Your task to perform on an android device: Search for beats solo 3 on bestbuy.com, select the first entry, add it to the cart, then select checkout. Image 0: 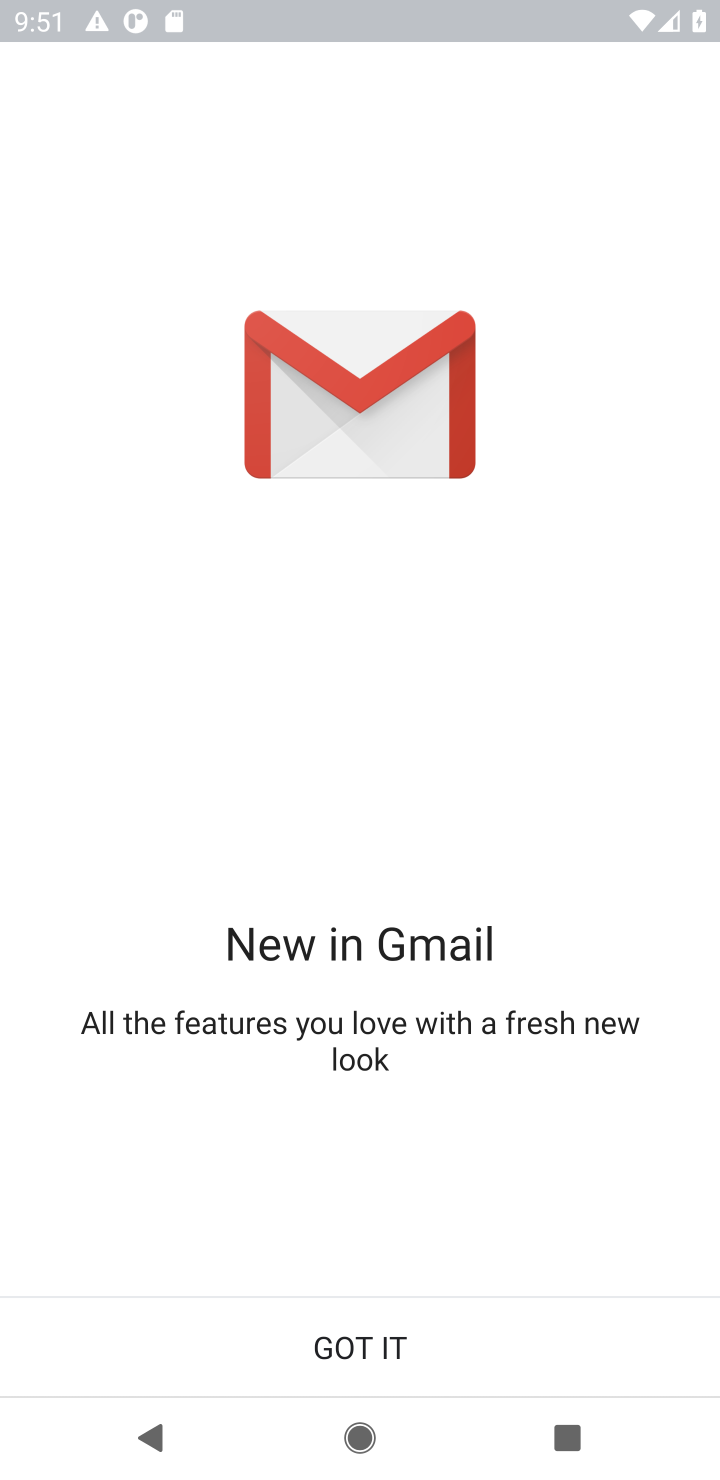
Step 0: press home button
Your task to perform on an android device: Search for beats solo 3 on bestbuy.com, select the first entry, add it to the cart, then select checkout. Image 1: 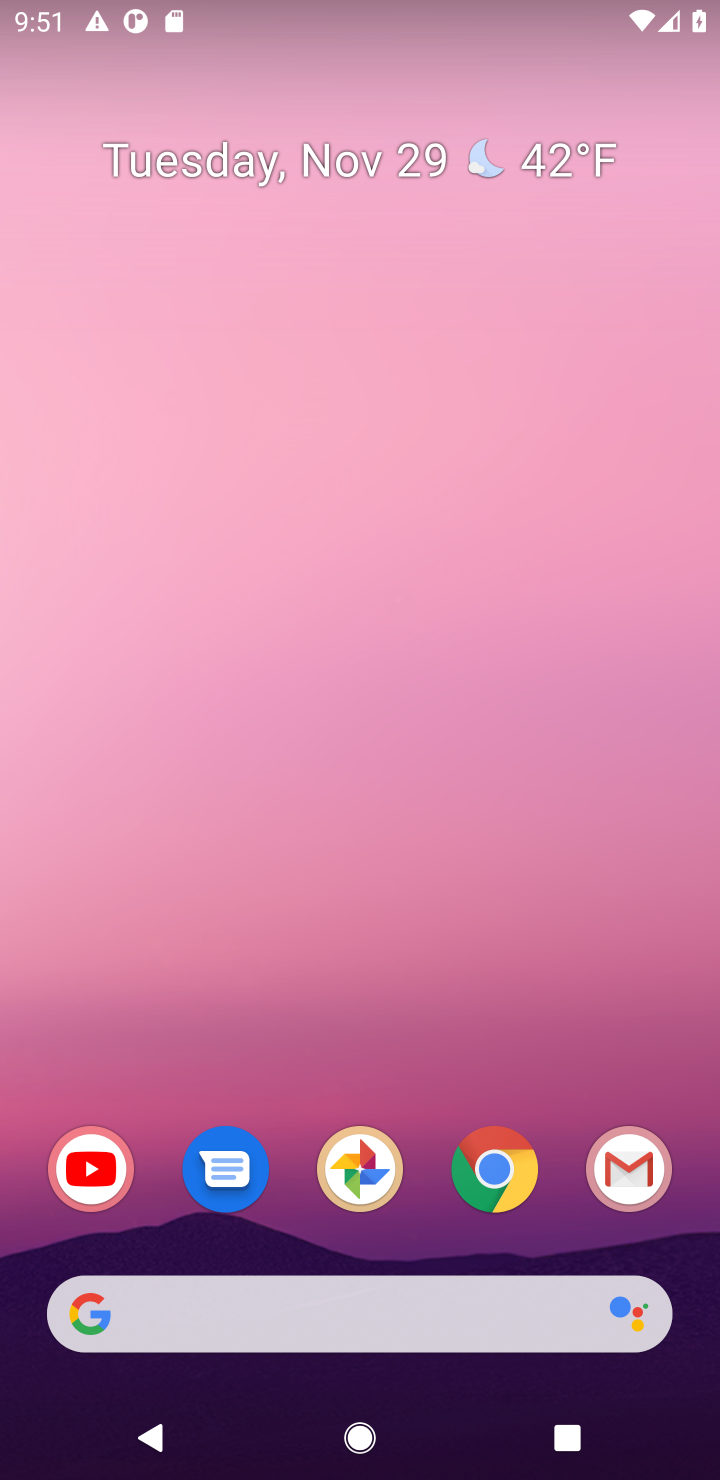
Step 1: click (492, 1330)
Your task to perform on an android device: Search for beats solo 3 on bestbuy.com, select the first entry, add it to the cart, then select checkout. Image 2: 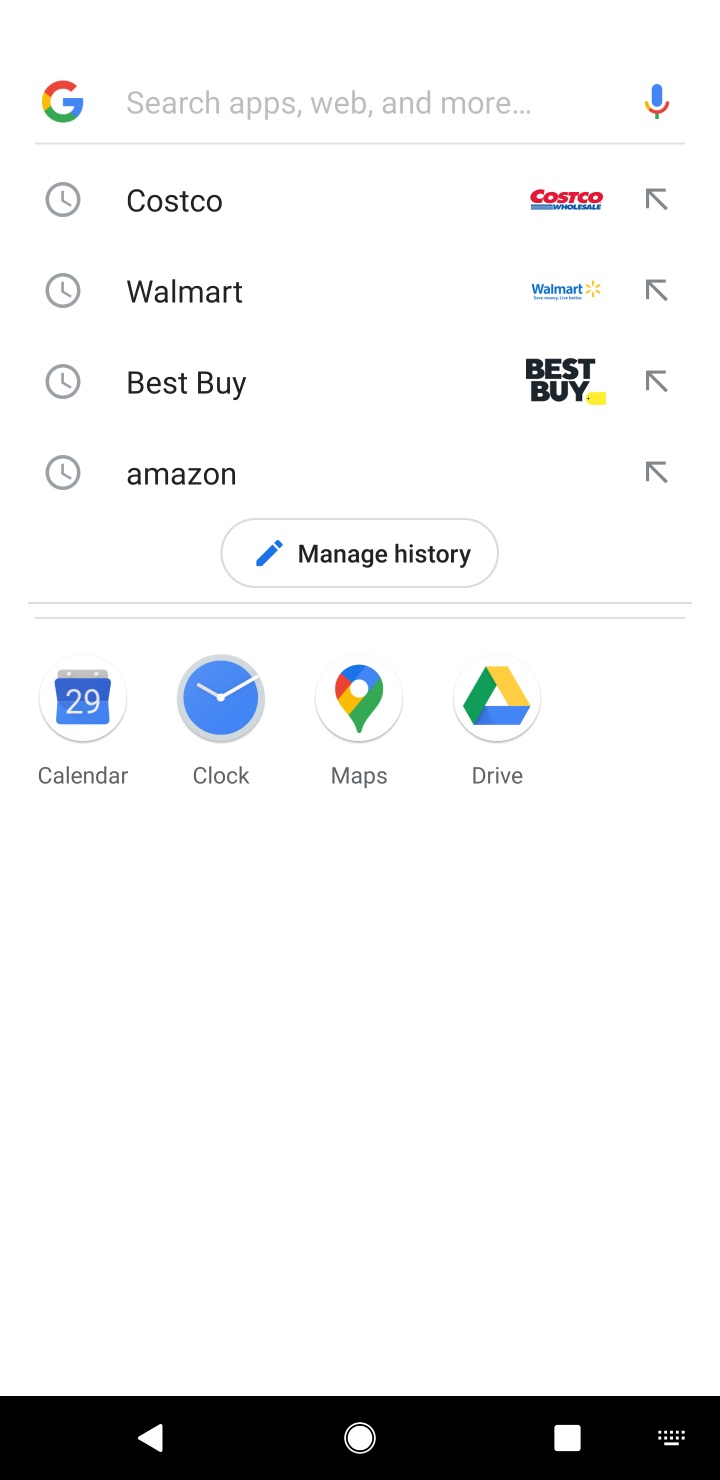
Step 2: click (160, 393)
Your task to perform on an android device: Search for beats solo 3 on bestbuy.com, select the first entry, add it to the cart, then select checkout. Image 3: 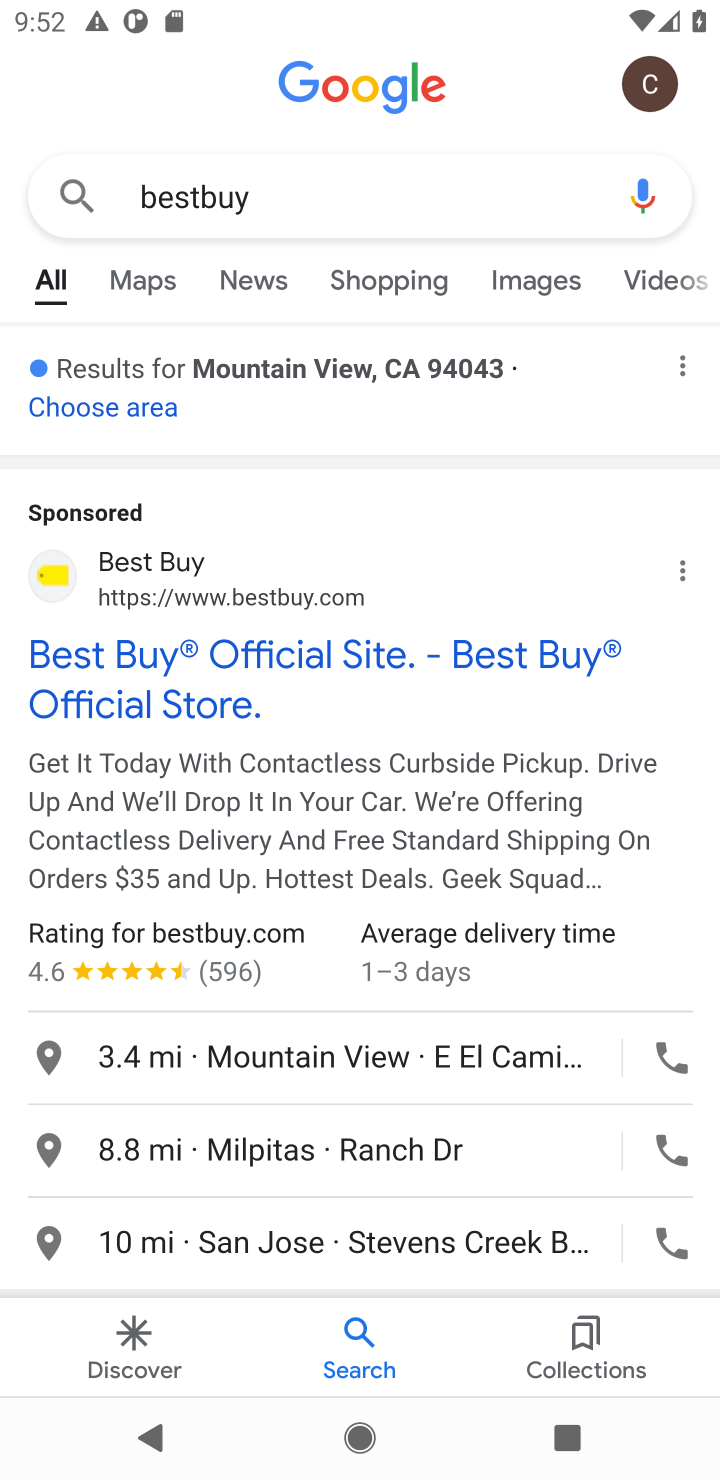
Step 3: click (148, 704)
Your task to perform on an android device: Search for beats solo 3 on bestbuy.com, select the first entry, add it to the cart, then select checkout. Image 4: 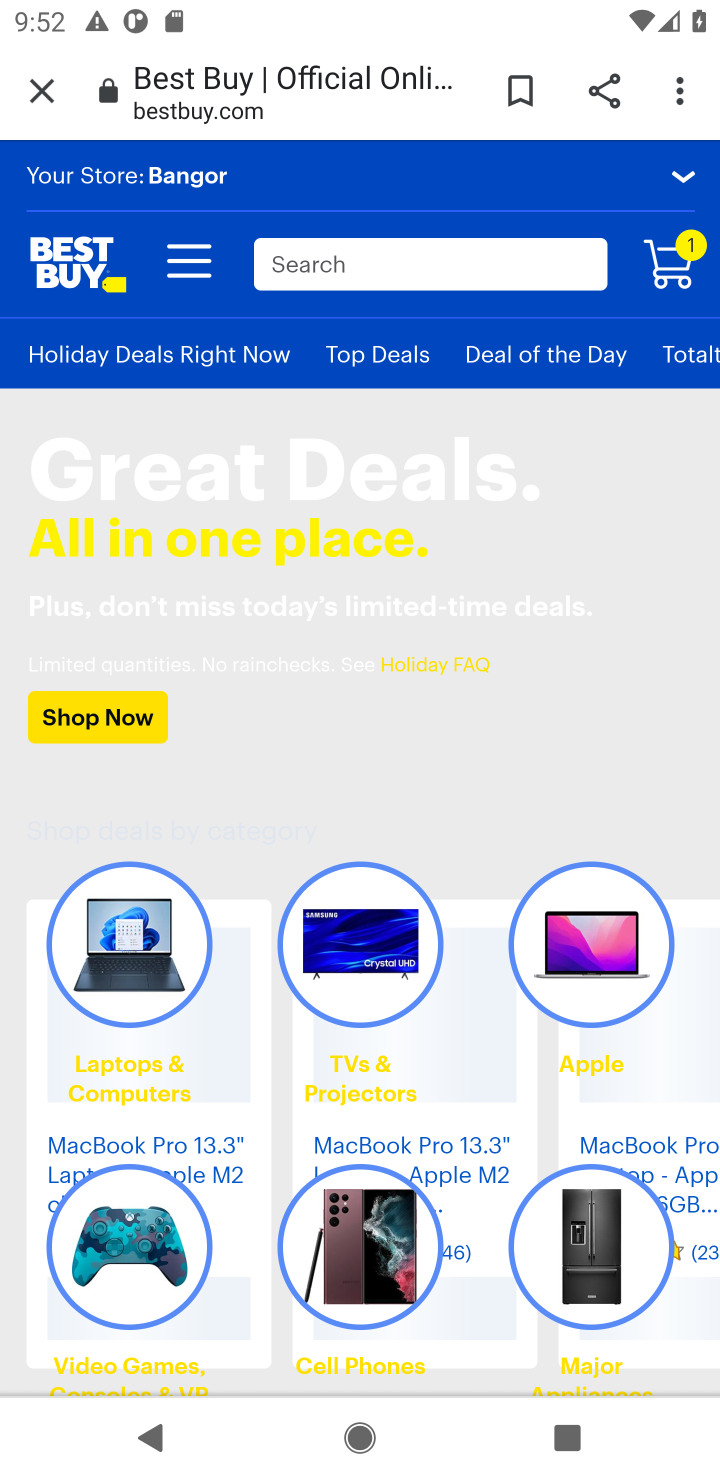
Step 4: click (382, 276)
Your task to perform on an android device: Search for beats solo 3 on bestbuy.com, select the first entry, add it to the cart, then select checkout. Image 5: 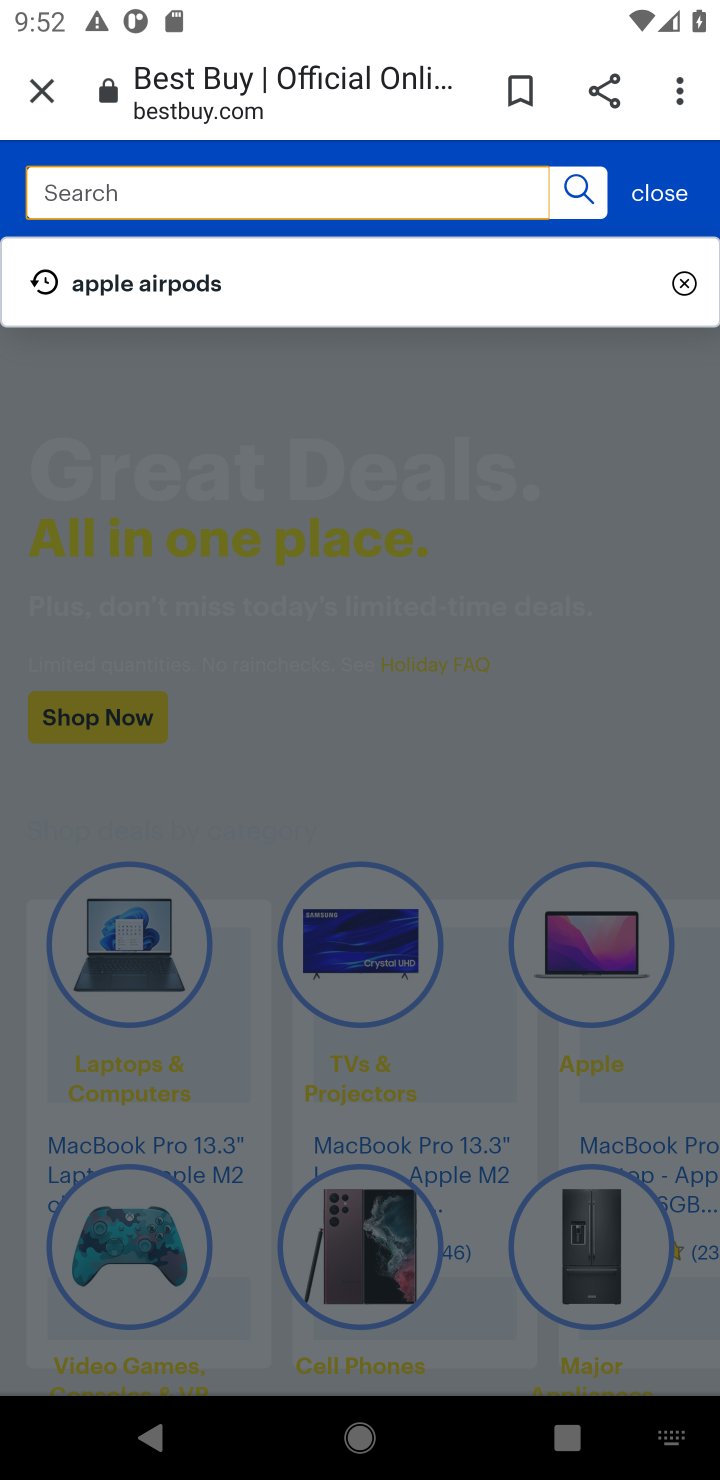
Step 5: type "beatsolo 3"
Your task to perform on an android device: Search for beats solo 3 on bestbuy.com, select the first entry, add it to the cart, then select checkout. Image 6: 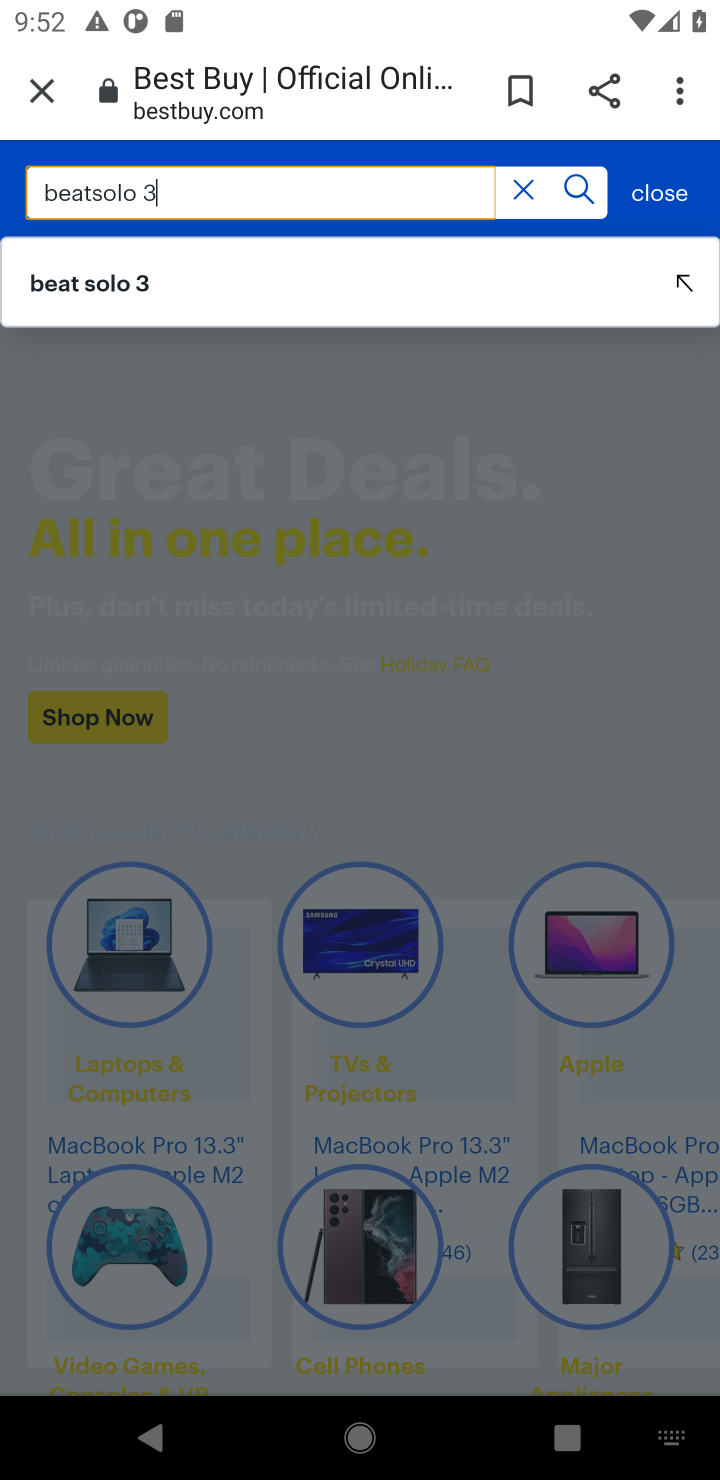
Step 6: click (167, 283)
Your task to perform on an android device: Search for beats solo 3 on bestbuy.com, select the first entry, add it to the cart, then select checkout. Image 7: 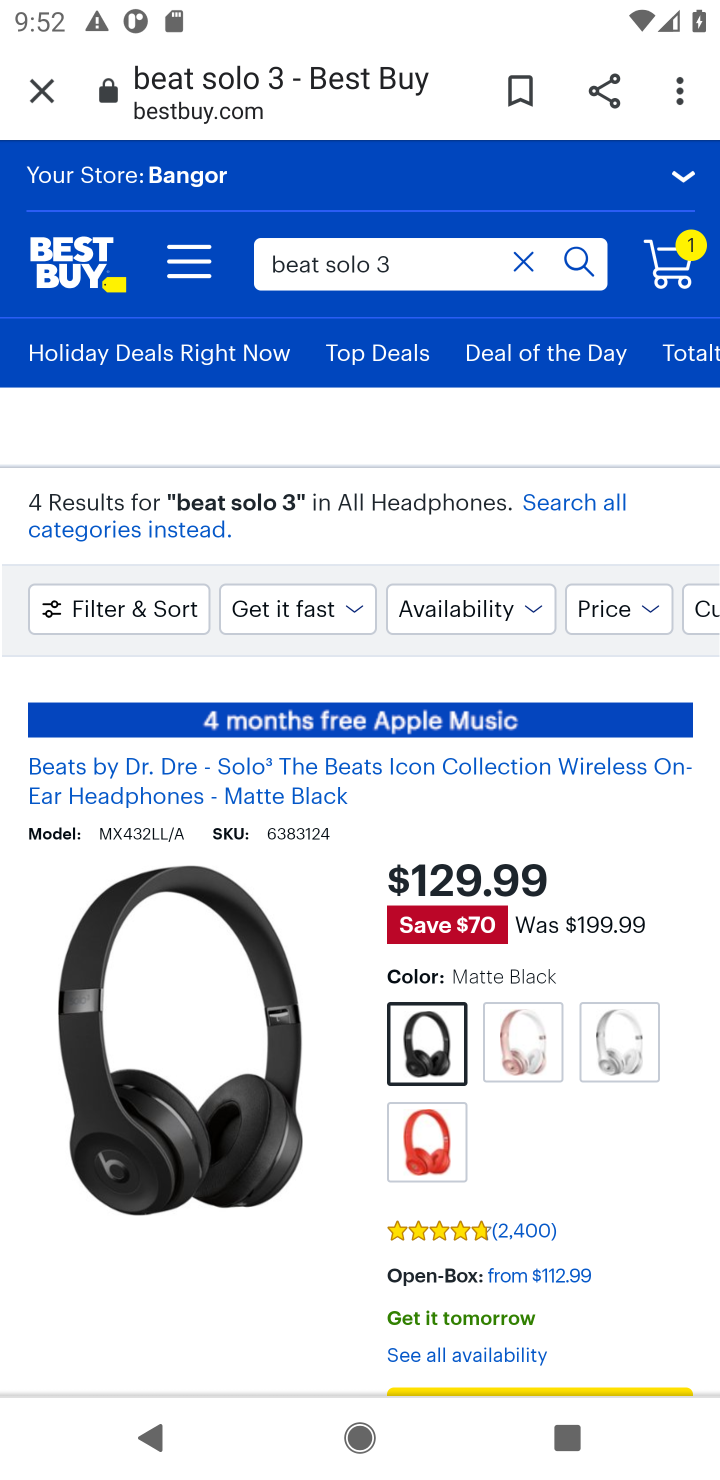
Step 7: click (509, 1384)
Your task to perform on an android device: Search for beats solo 3 on bestbuy.com, select the first entry, add it to the cart, then select checkout. Image 8: 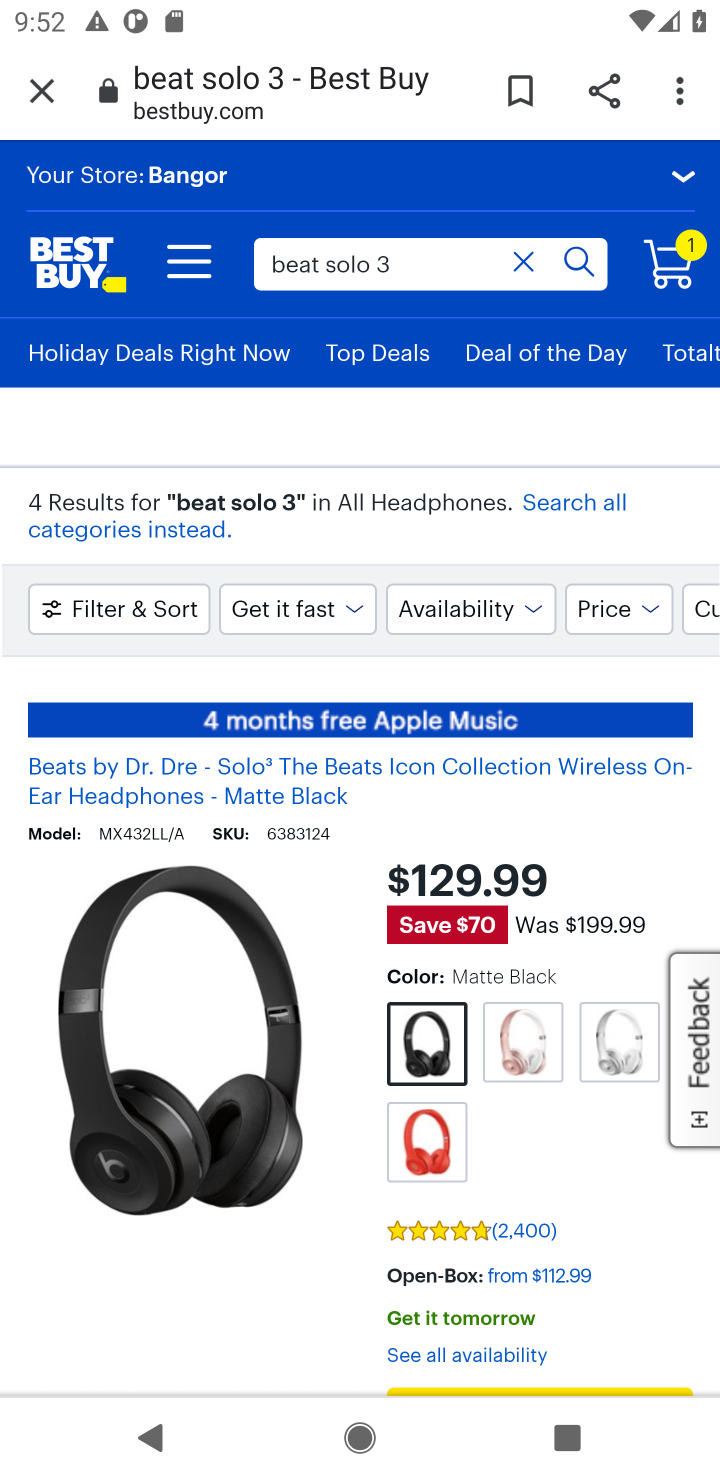
Step 8: task complete